Your task to perform on an android device: Go to ESPN.com Image 0: 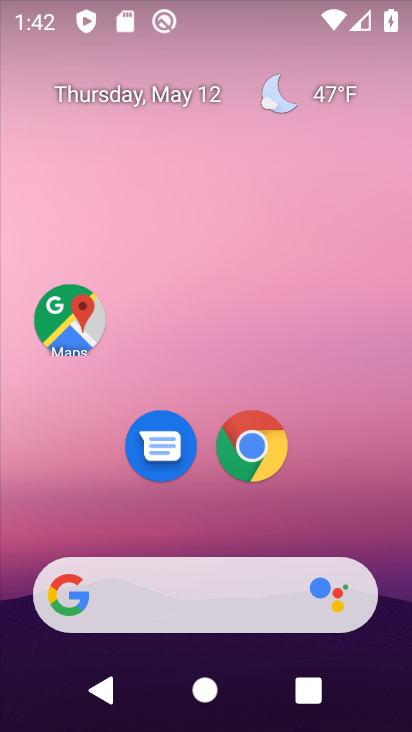
Step 0: click (242, 439)
Your task to perform on an android device: Go to ESPN.com Image 1: 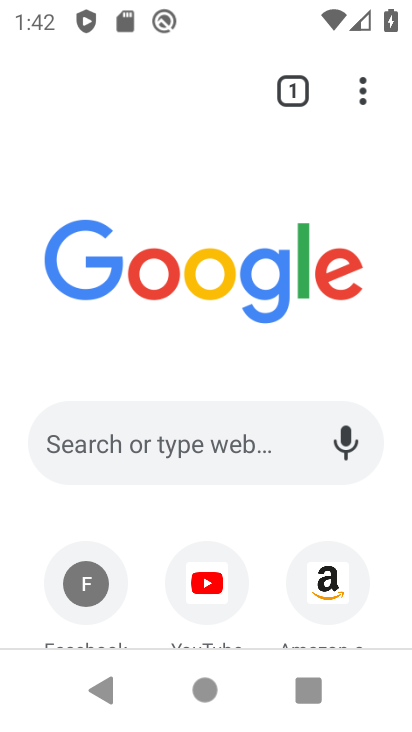
Step 1: click (172, 457)
Your task to perform on an android device: Go to ESPN.com Image 2: 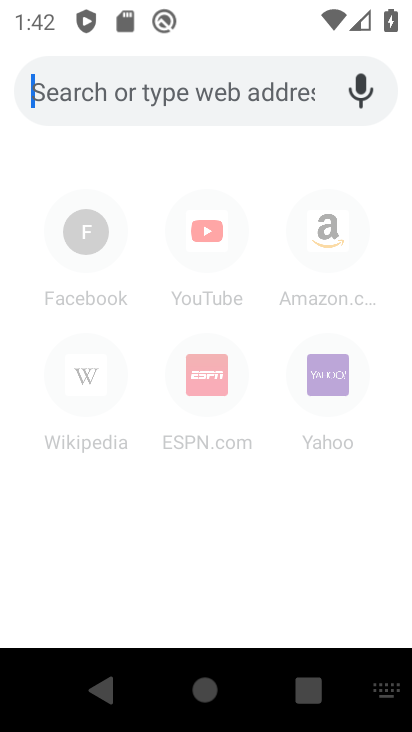
Step 2: type "espn"
Your task to perform on an android device: Go to ESPN.com Image 3: 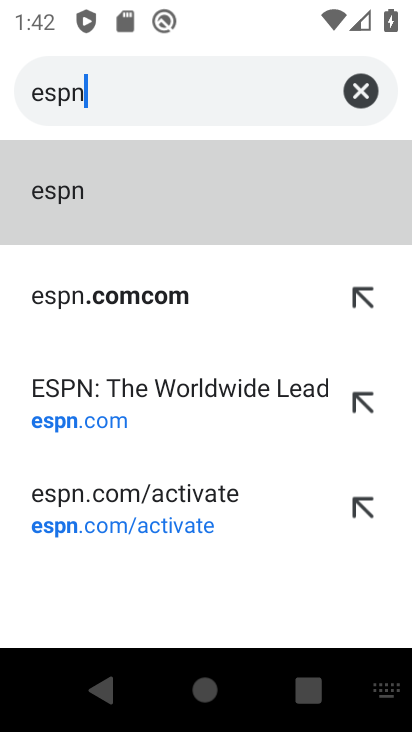
Step 3: click (87, 393)
Your task to perform on an android device: Go to ESPN.com Image 4: 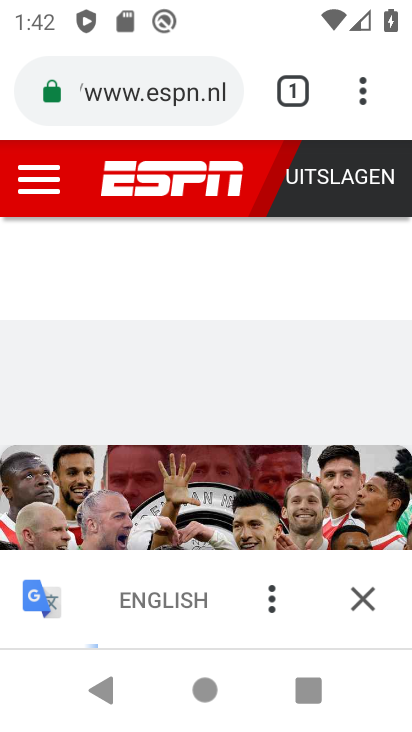
Step 4: task complete